Your task to perform on an android device: make emails show in primary in the gmail app Image 0: 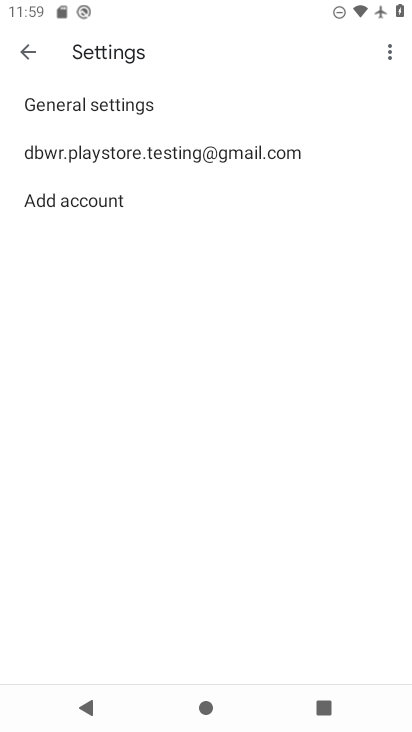
Step 0: click (18, 54)
Your task to perform on an android device: make emails show in primary in the gmail app Image 1: 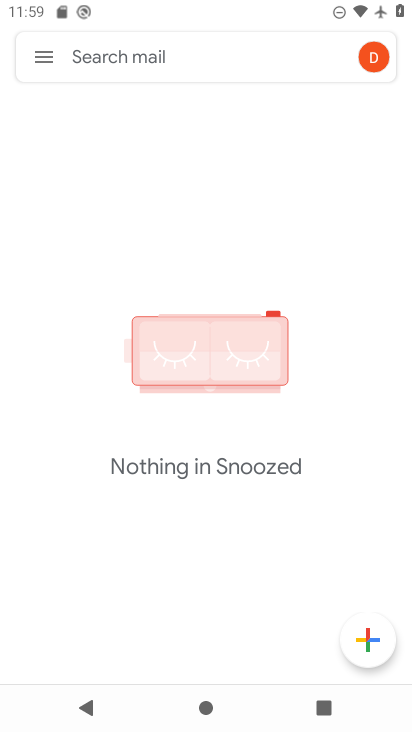
Step 1: click (38, 60)
Your task to perform on an android device: make emails show in primary in the gmail app Image 2: 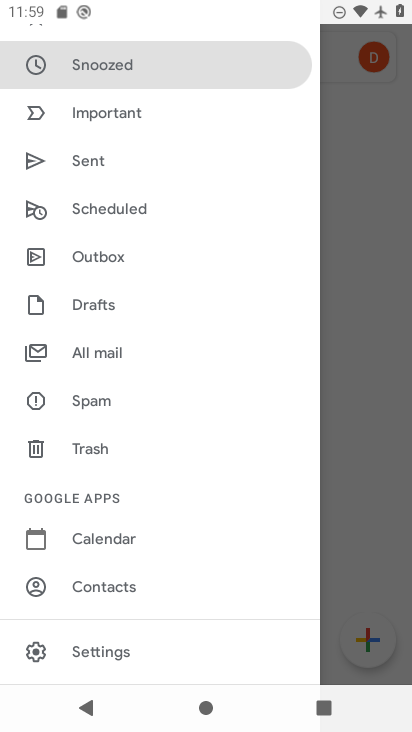
Step 2: click (87, 647)
Your task to perform on an android device: make emails show in primary in the gmail app Image 3: 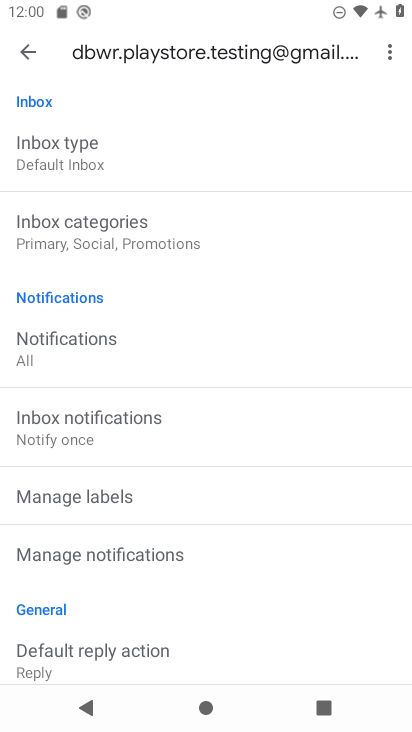
Step 3: click (79, 148)
Your task to perform on an android device: make emails show in primary in the gmail app Image 4: 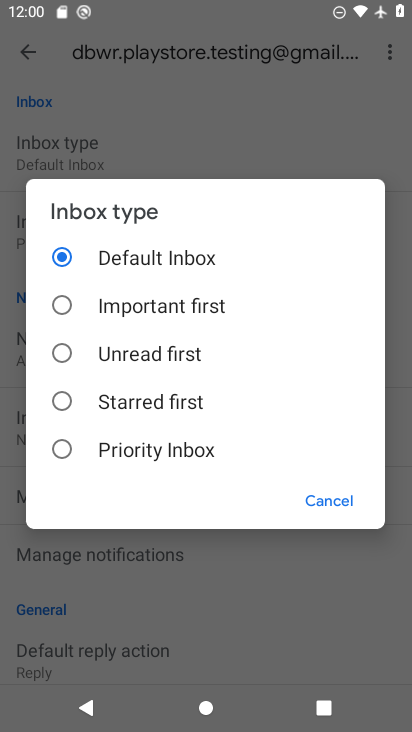
Step 4: click (334, 502)
Your task to perform on an android device: make emails show in primary in the gmail app Image 5: 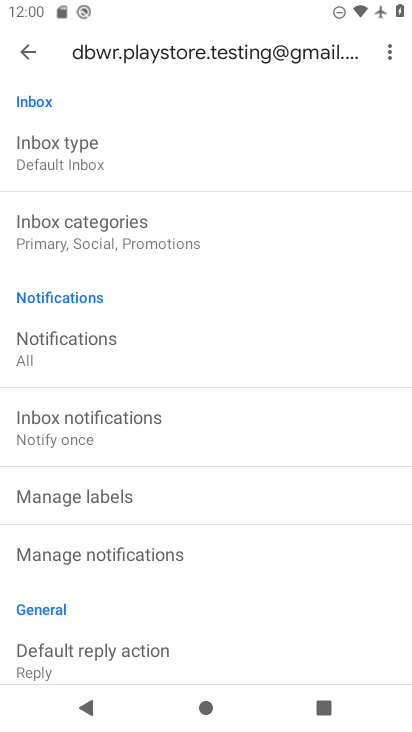
Step 5: task complete